Your task to perform on an android device: Open calendar and show me the third week of next month Image 0: 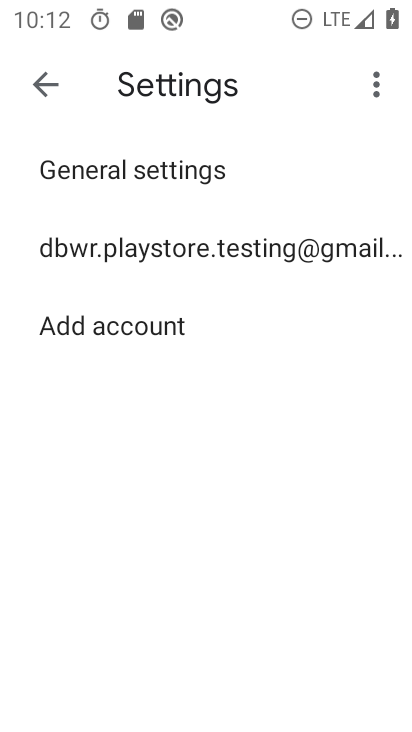
Step 0: press back button
Your task to perform on an android device: Open calendar and show me the third week of next month Image 1: 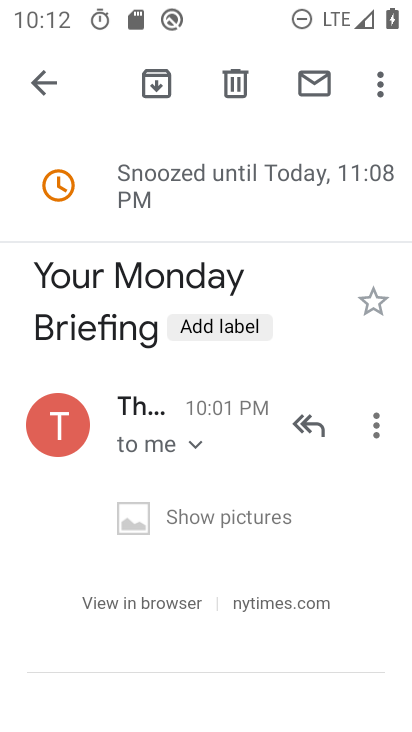
Step 1: press back button
Your task to perform on an android device: Open calendar and show me the third week of next month Image 2: 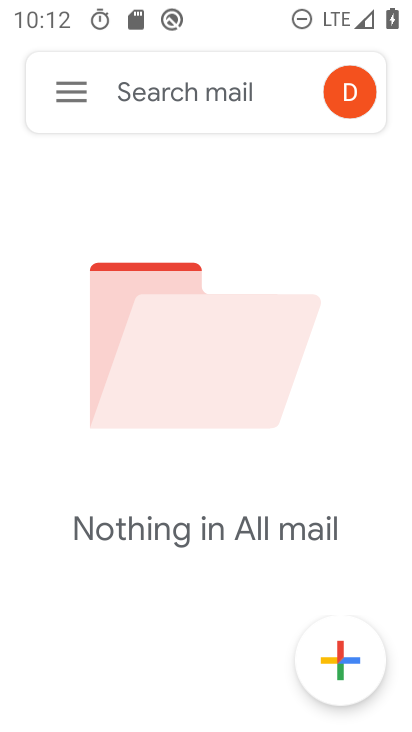
Step 2: press back button
Your task to perform on an android device: Open calendar and show me the third week of next month Image 3: 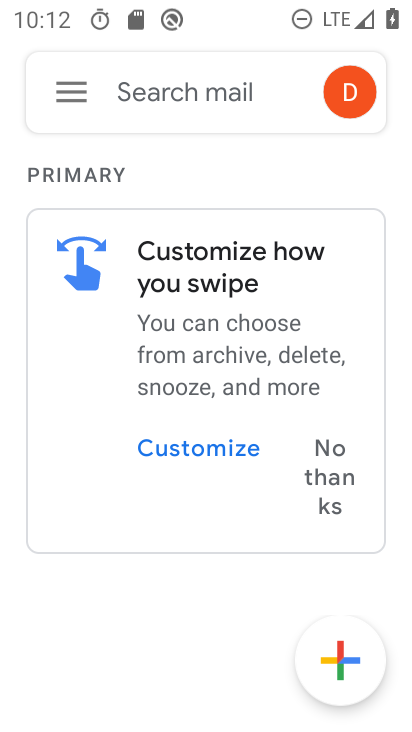
Step 3: press back button
Your task to perform on an android device: Open calendar and show me the third week of next month Image 4: 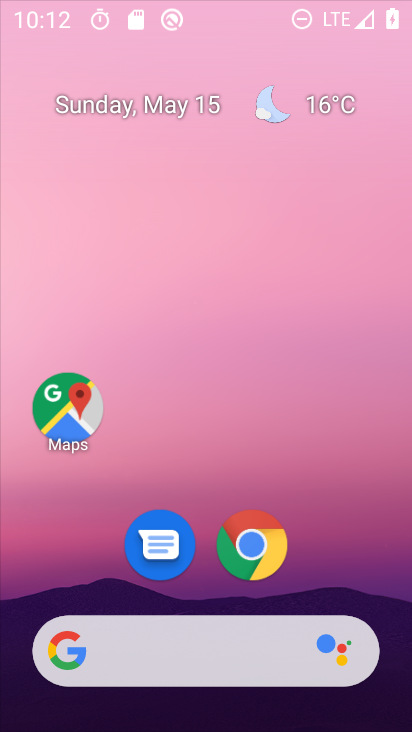
Step 4: press back button
Your task to perform on an android device: Open calendar and show me the third week of next month Image 5: 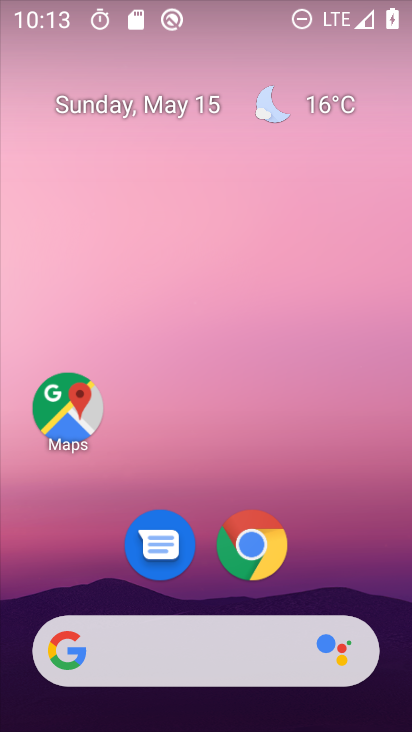
Step 5: drag from (337, 575) to (233, 33)
Your task to perform on an android device: Open calendar and show me the third week of next month Image 6: 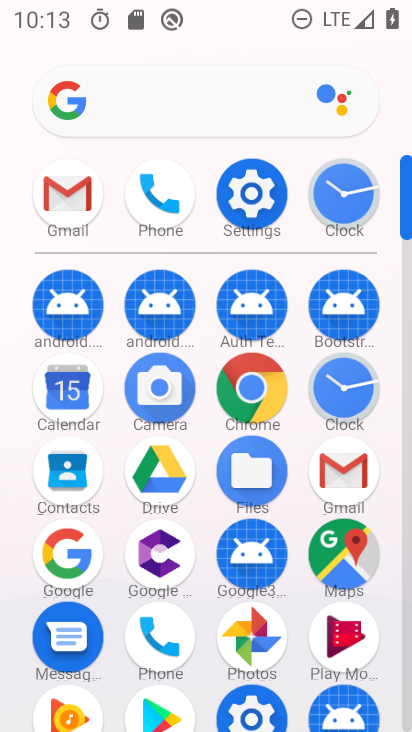
Step 6: click (67, 388)
Your task to perform on an android device: Open calendar and show me the third week of next month Image 7: 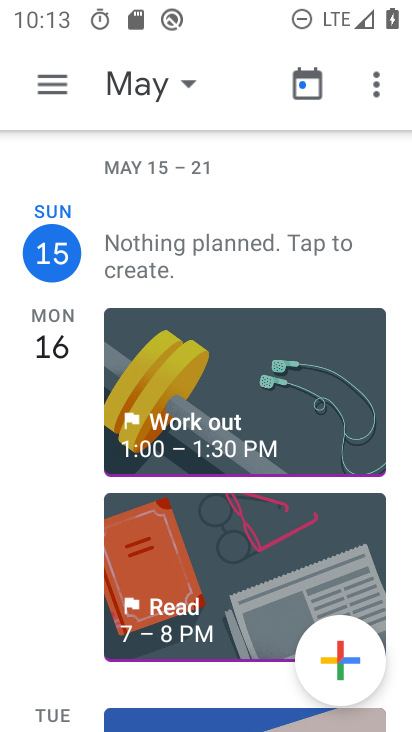
Step 7: click (313, 90)
Your task to perform on an android device: Open calendar and show me the third week of next month Image 8: 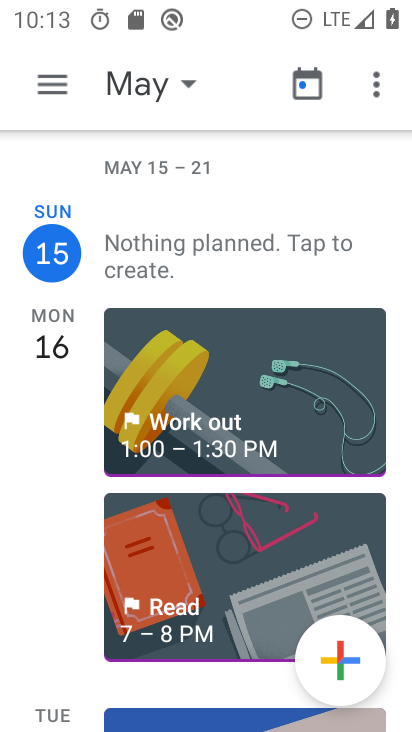
Step 8: click (182, 81)
Your task to perform on an android device: Open calendar and show me the third week of next month Image 9: 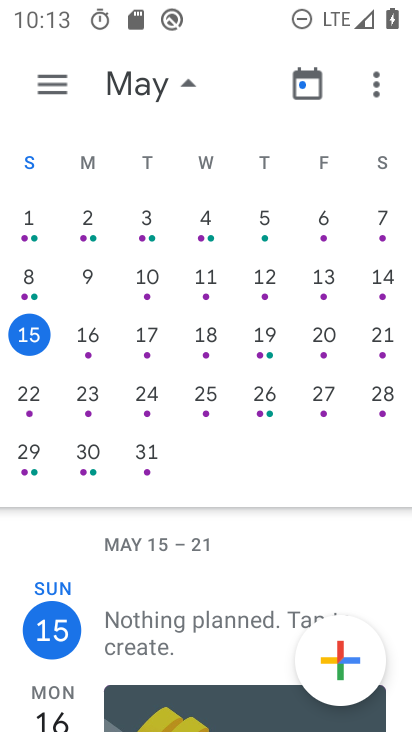
Step 9: drag from (371, 360) to (21, 356)
Your task to perform on an android device: Open calendar and show me the third week of next month Image 10: 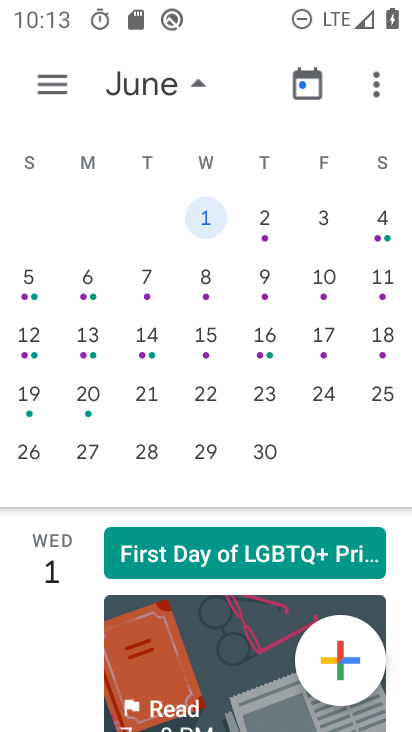
Step 10: click (90, 391)
Your task to perform on an android device: Open calendar and show me the third week of next month Image 11: 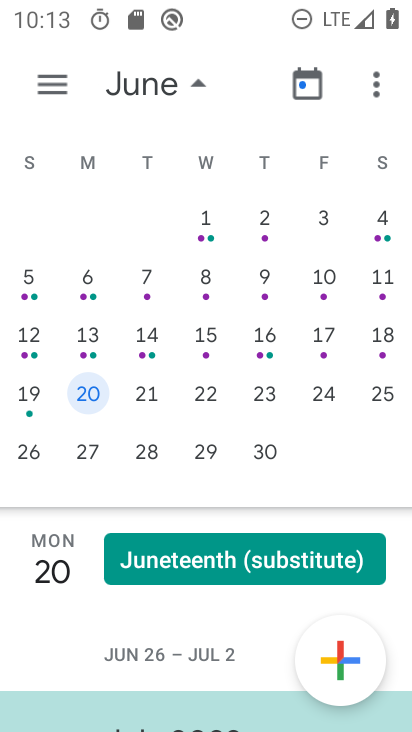
Step 11: click (49, 80)
Your task to perform on an android device: Open calendar and show me the third week of next month Image 12: 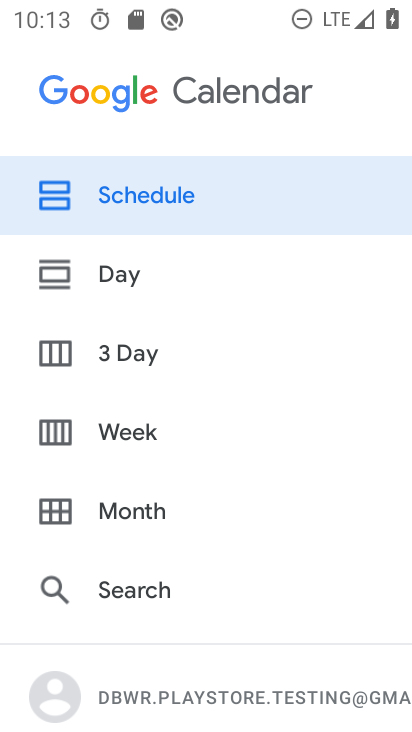
Step 12: click (116, 431)
Your task to perform on an android device: Open calendar and show me the third week of next month Image 13: 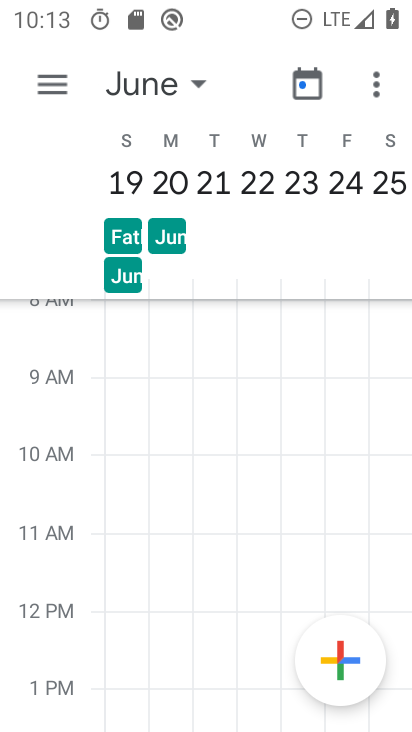
Step 13: task complete